Your task to perform on an android device: turn off data saver in the chrome app Image 0: 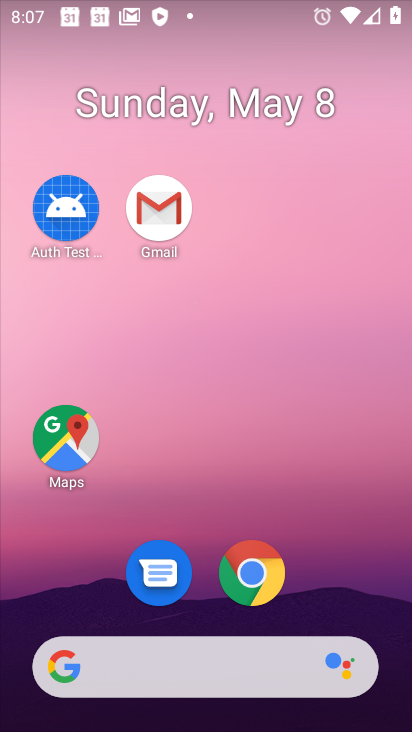
Step 0: drag from (355, 606) to (110, 76)
Your task to perform on an android device: turn off data saver in the chrome app Image 1: 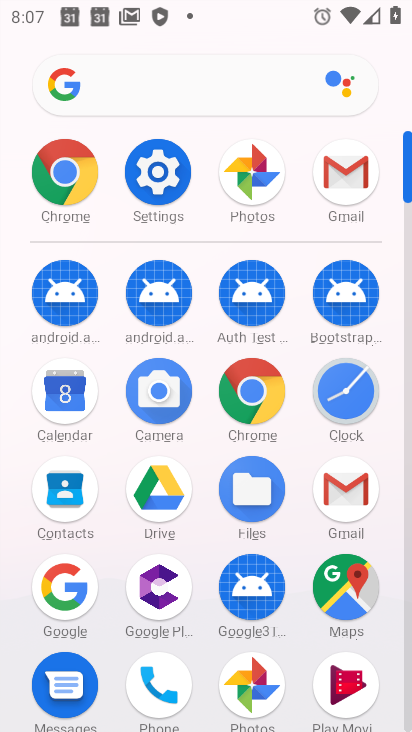
Step 1: click (237, 398)
Your task to perform on an android device: turn off data saver in the chrome app Image 2: 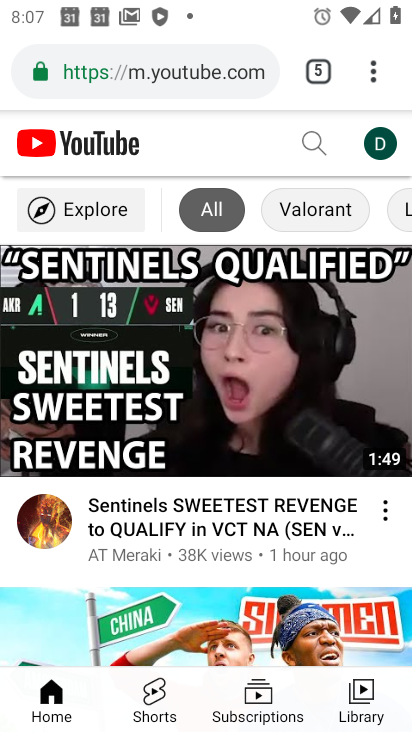
Step 2: drag from (371, 69) to (131, 563)
Your task to perform on an android device: turn off data saver in the chrome app Image 3: 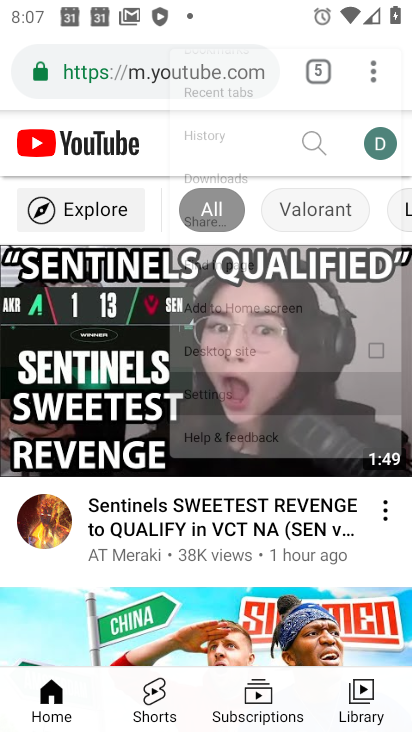
Step 3: click (131, 563)
Your task to perform on an android device: turn off data saver in the chrome app Image 4: 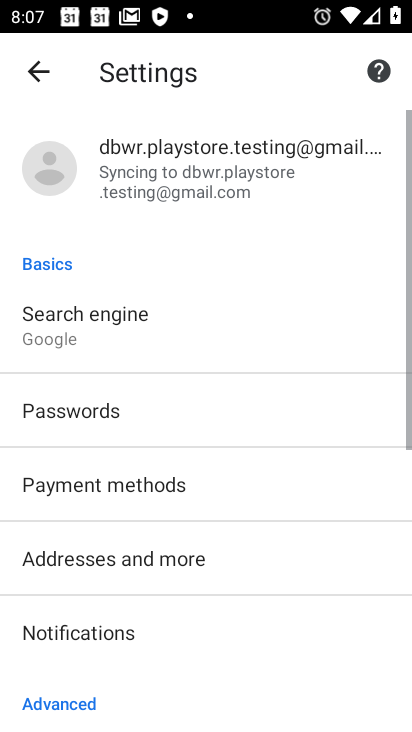
Step 4: drag from (151, 588) to (86, 37)
Your task to perform on an android device: turn off data saver in the chrome app Image 5: 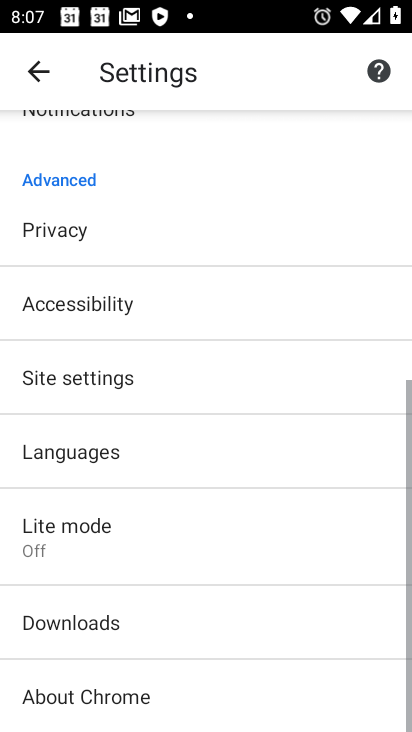
Step 5: drag from (110, 524) to (84, 149)
Your task to perform on an android device: turn off data saver in the chrome app Image 6: 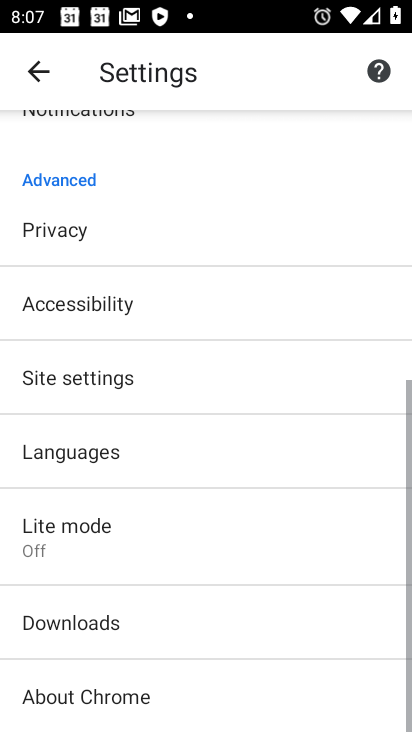
Step 6: click (76, 524)
Your task to perform on an android device: turn off data saver in the chrome app Image 7: 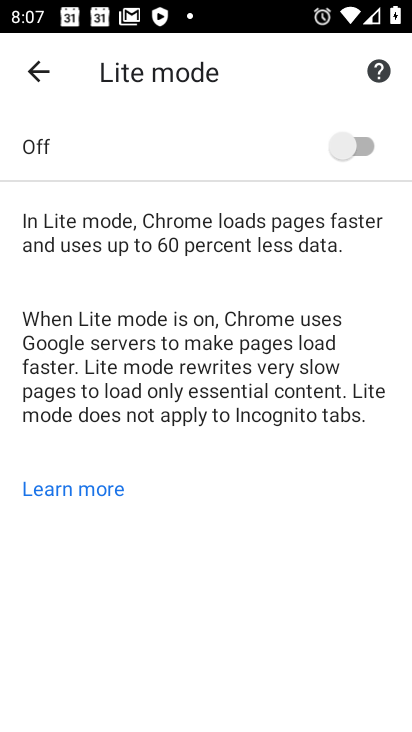
Step 7: task complete